Your task to perform on an android device: open the mobile data screen to see how much data has been used Image 0: 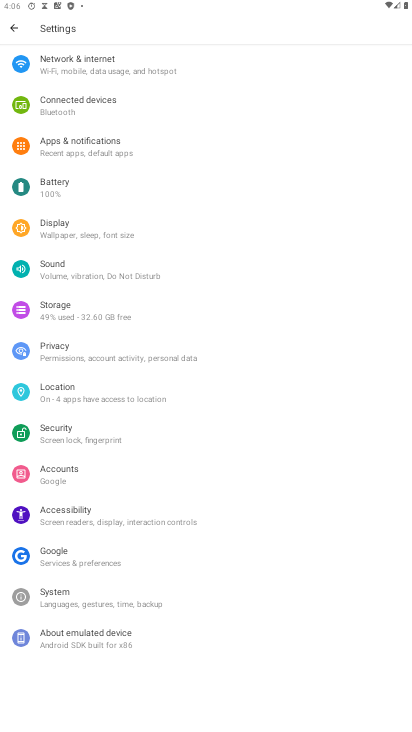
Step 0: click (122, 65)
Your task to perform on an android device: open the mobile data screen to see how much data has been used Image 1: 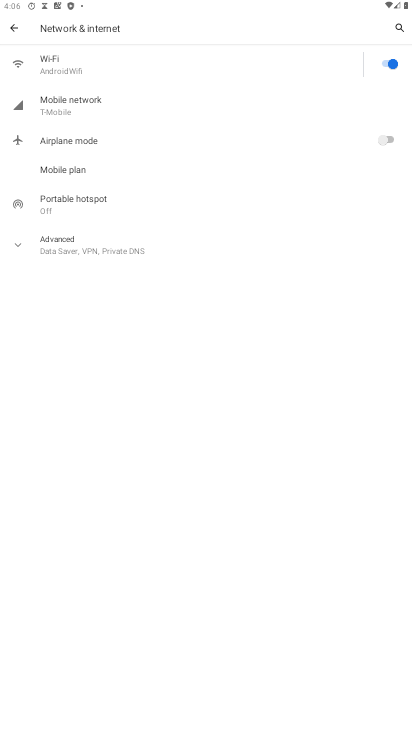
Step 1: click (94, 100)
Your task to perform on an android device: open the mobile data screen to see how much data has been used Image 2: 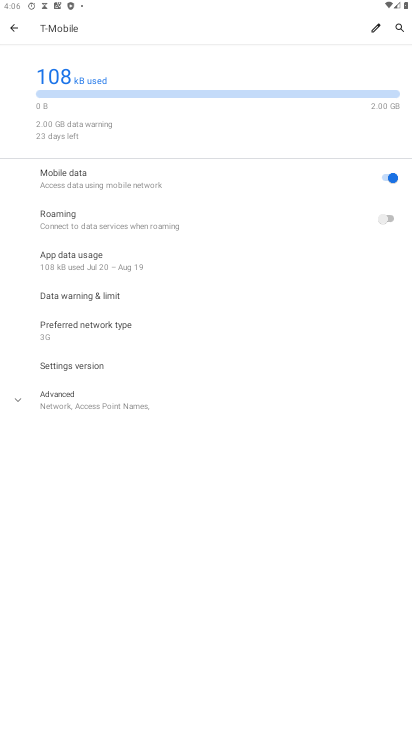
Step 2: task complete